Your task to perform on an android device: add a label to a message in the gmail app Image 0: 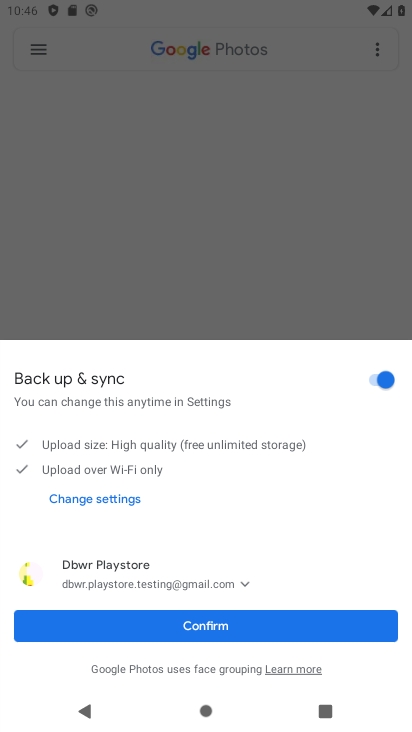
Step 0: click (209, 633)
Your task to perform on an android device: add a label to a message in the gmail app Image 1: 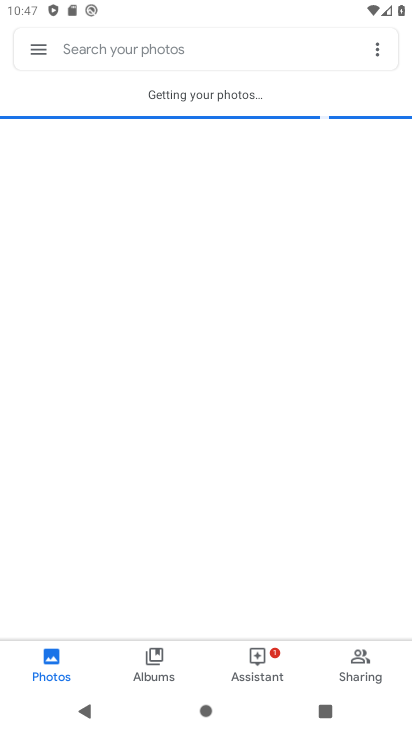
Step 1: press home button
Your task to perform on an android device: add a label to a message in the gmail app Image 2: 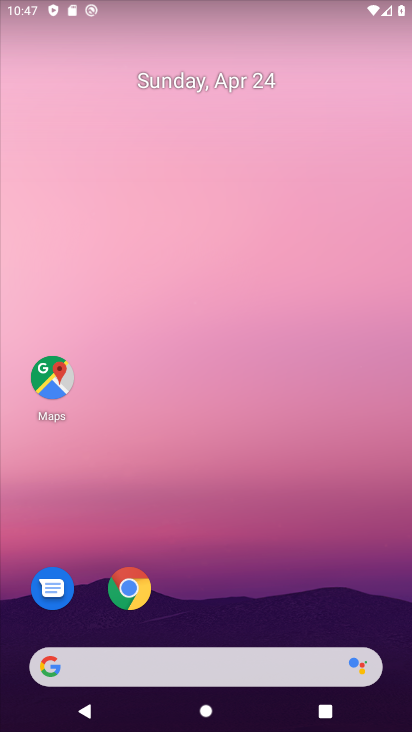
Step 2: drag from (182, 658) to (299, 184)
Your task to perform on an android device: add a label to a message in the gmail app Image 3: 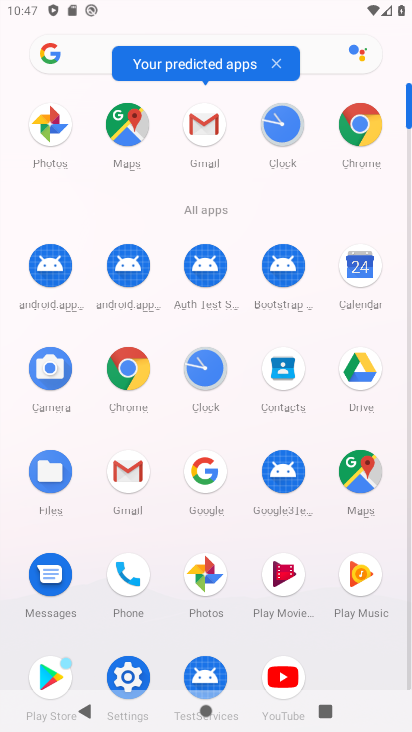
Step 3: click (129, 471)
Your task to perform on an android device: add a label to a message in the gmail app Image 4: 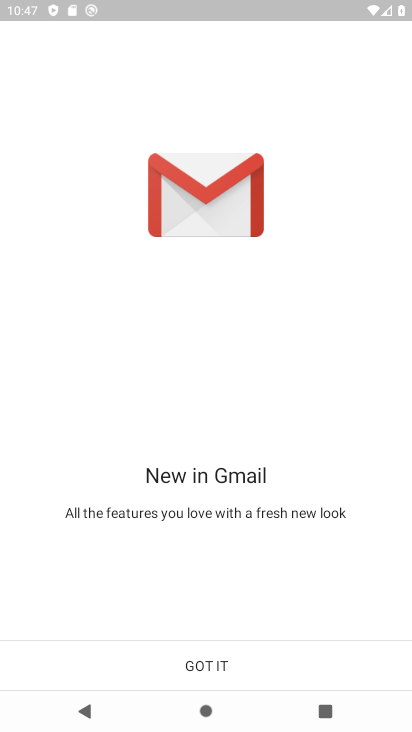
Step 4: click (207, 662)
Your task to perform on an android device: add a label to a message in the gmail app Image 5: 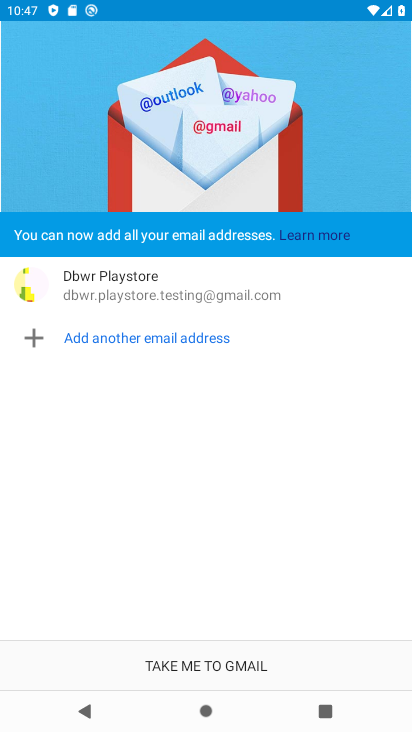
Step 5: click (207, 662)
Your task to perform on an android device: add a label to a message in the gmail app Image 6: 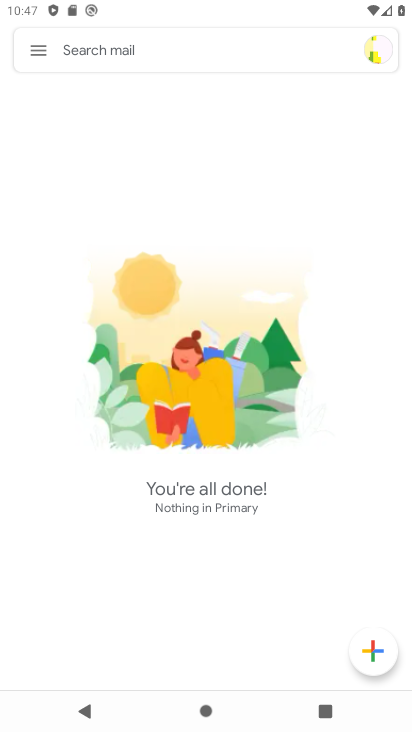
Step 6: click (31, 50)
Your task to perform on an android device: add a label to a message in the gmail app Image 7: 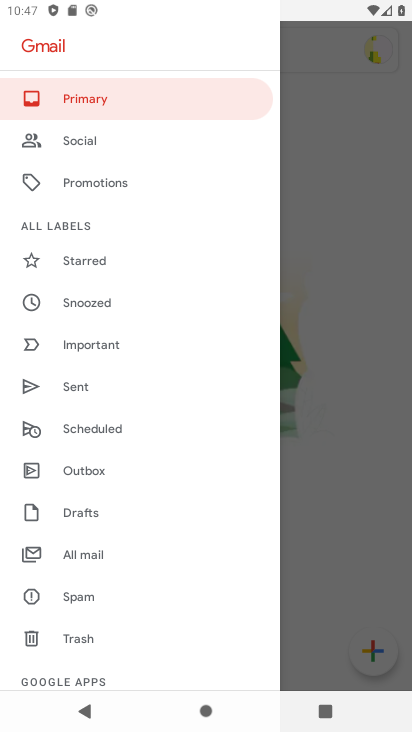
Step 7: click (88, 554)
Your task to perform on an android device: add a label to a message in the gmail app Image 8: 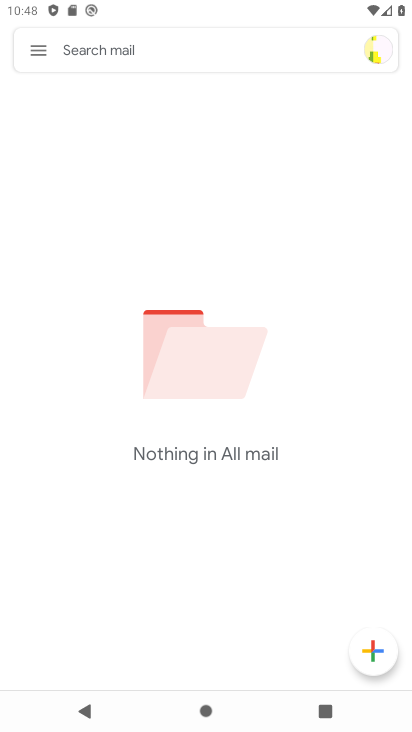
Step 8: task complete